Your task to perform on an android device: Play the last video I watched on Youtube Image 0: 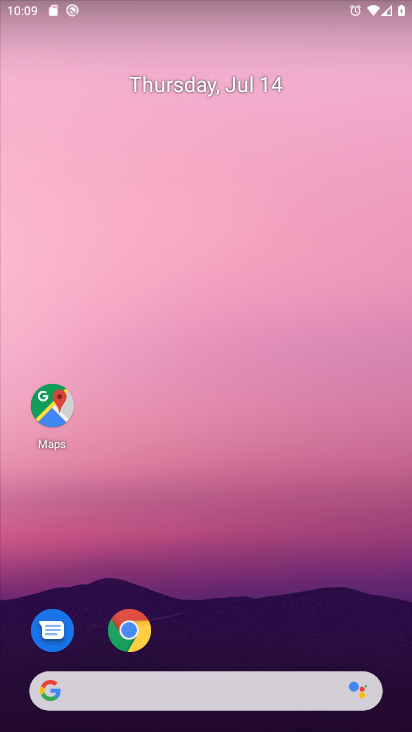
Step 0: drag from (217, 525) to (268, 30)
Your task to perform on an android device: Play the last video I watched on Youtube Image 1: 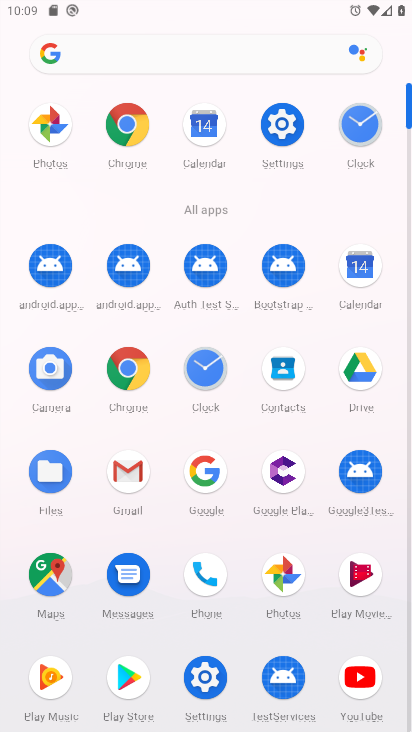
Step 1: click (365, 663)
Your task to perform on an android device: Play the last video I watched on Youtube Image 2: 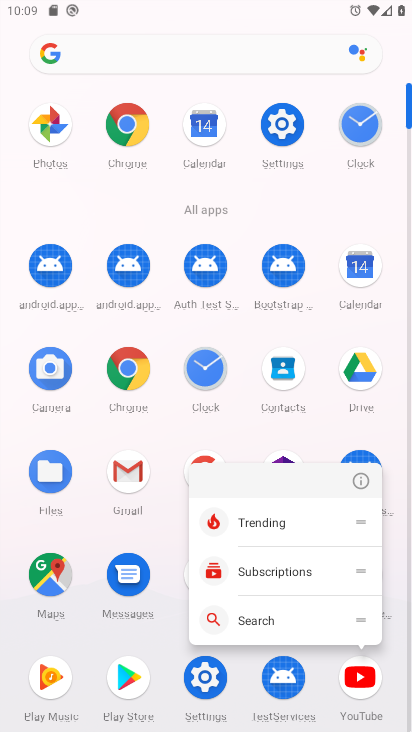
Step 2: click (364, 477)
Your task to perform on an android device: Play the last video I watched on Youtube Image 3: 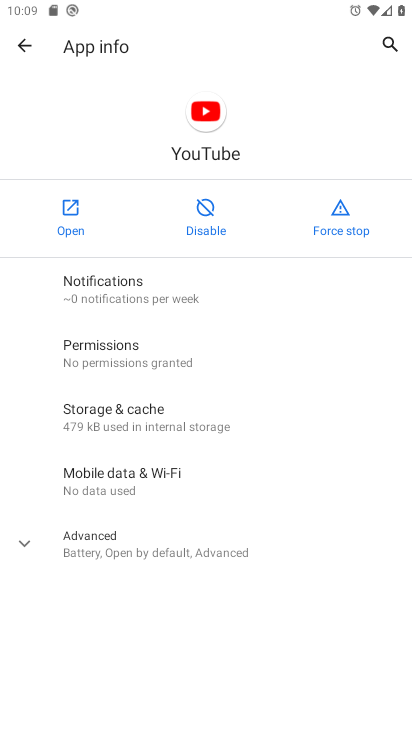
Step 3: click (46, 223)
Your task to perform on an android device: Play the last video I watched on Youtube Image 4: 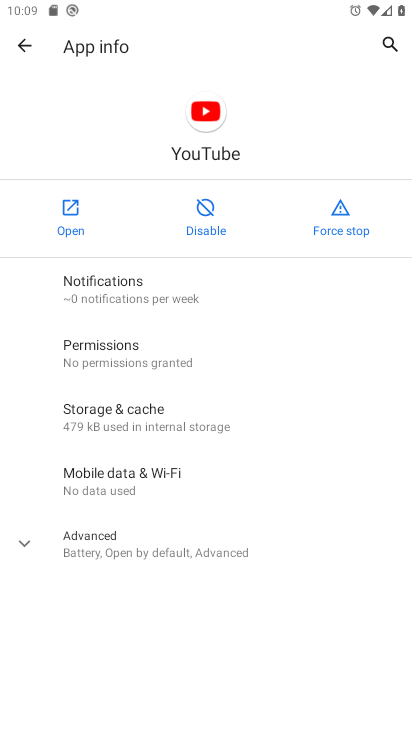
Step 4: click (68, 218)
Your task to perform on an android device: Play the last video I watched on Youtube Image 5: 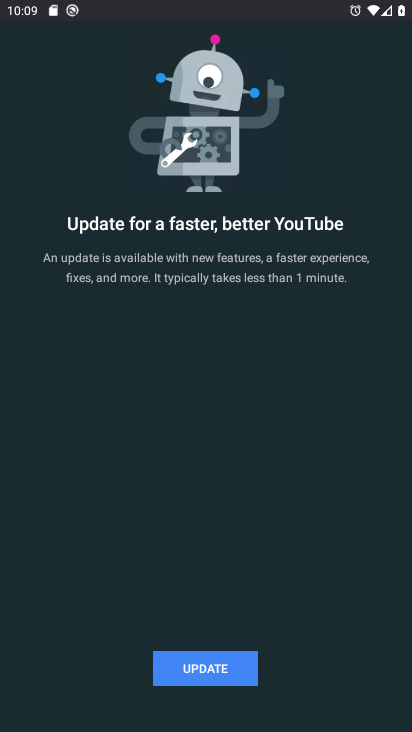
Step 5: task complete